Your task to perform on an android device: turn smart compose on in the gmail app Image 0: 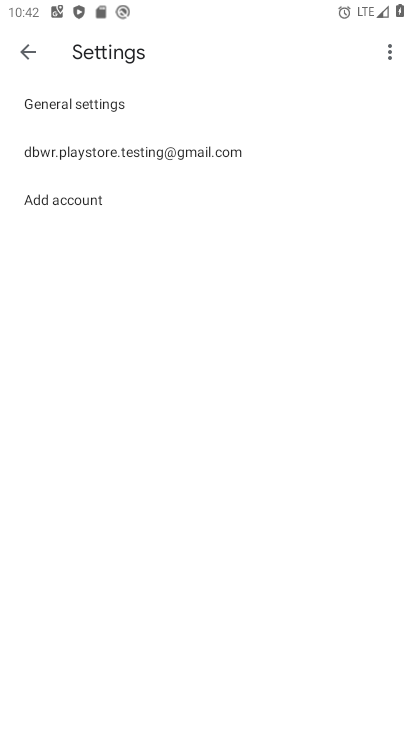
Step 0: press home button
Your task to perform on an android device: turn smart compose on in the gmail app Image 1: 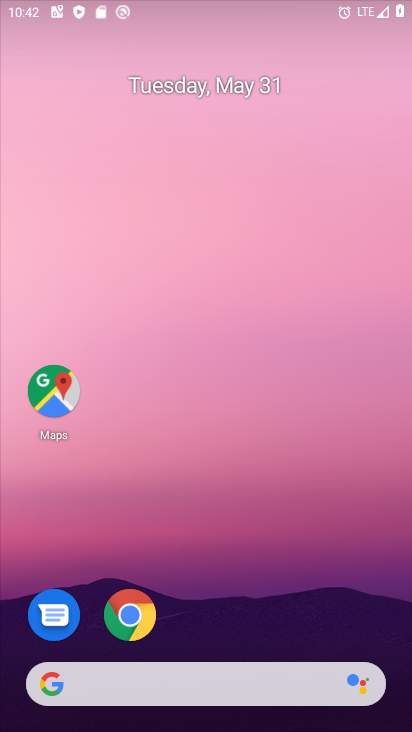
Step 1: drag from (359, 506) to (365, 26)
Your task to perform on an android device: turn smart compose on in the gmail app Image 2: 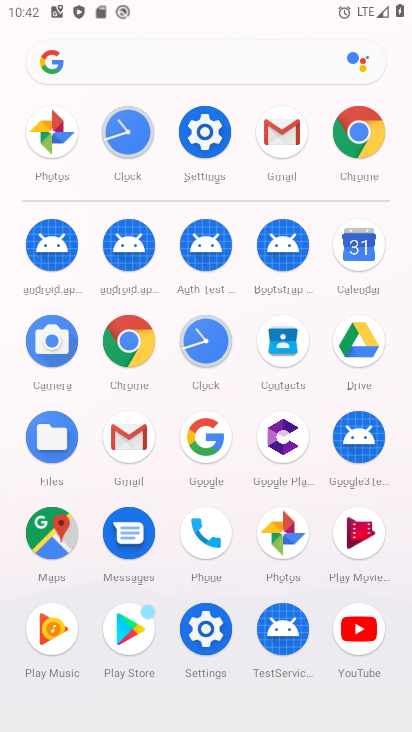
Step 2: click (266, 137)
Your task to perform on an android device: turn smart compose on in the gmail app Image 3: 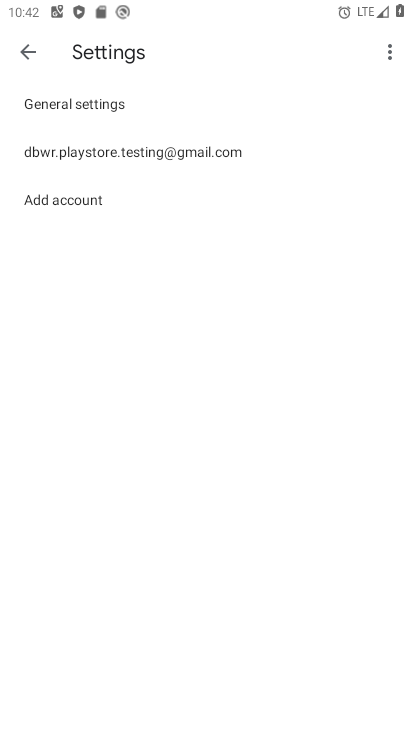
Step 3: click (26, 63)
Your task to perform on an android device: turn smart compose on in the gmail app Image 4: 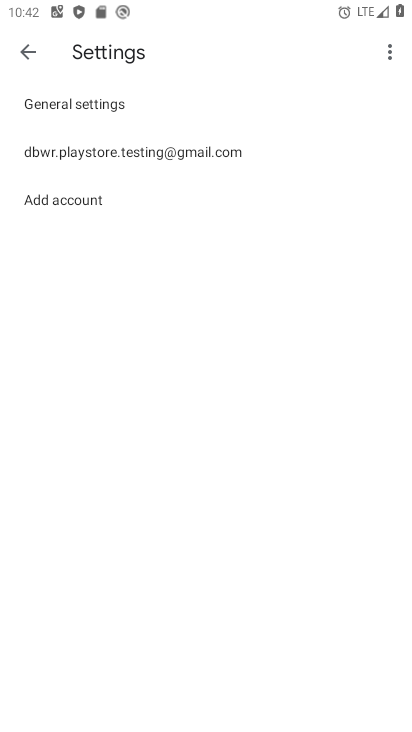
Step 4: click (26, 62)
Your task to perform on an android device: turn smart compose on in the gmail app Image 5: 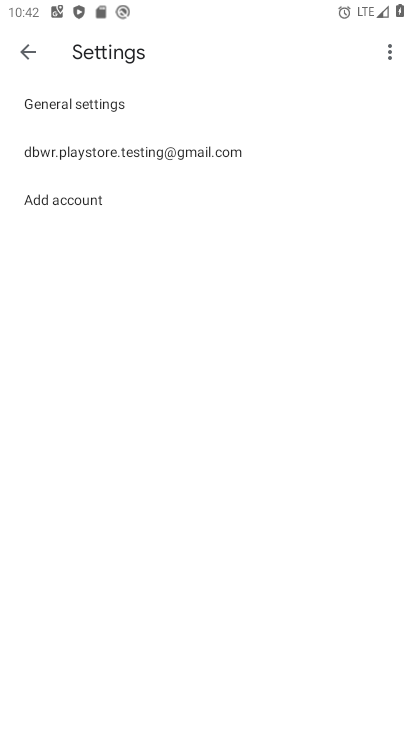
Step 5: click (26, 61)
Your task to perform on an android device: turn smart compose on in the gmail app Image 6: 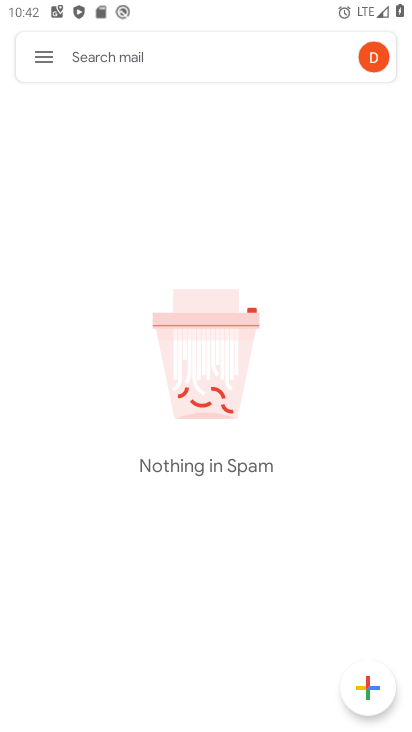
Step 6: click (26, 61)
Your task to perform on an android device: turn smart compose on in the gmail app Image 7: 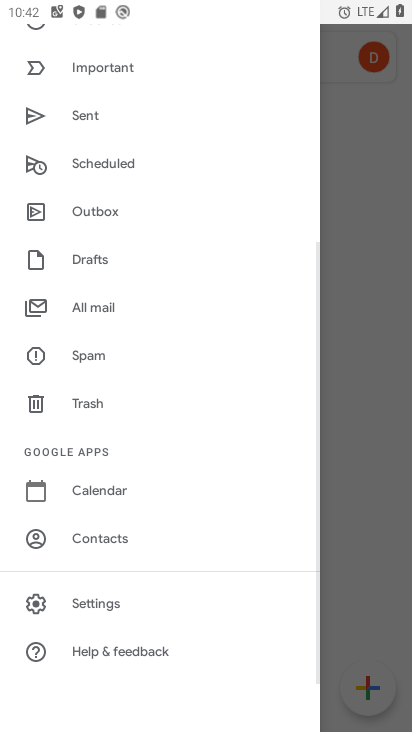
Step 7: drag from (151, 581) to (226, 209)
Your task to perform on an android device: turn smart compose on in the gmail app Image 8: 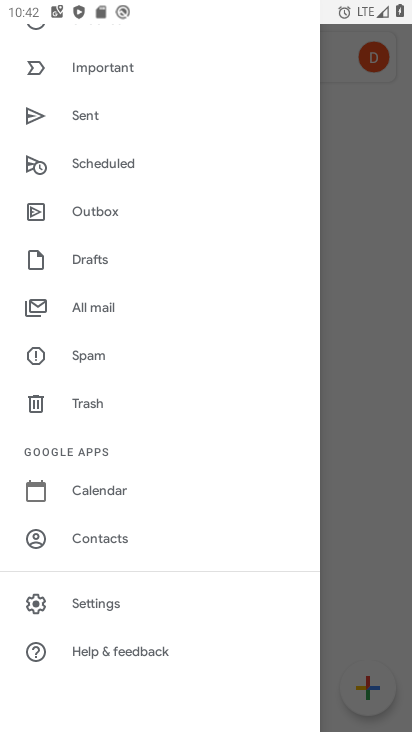
Step 8: click (86, 607)
Your task to perform on an android device: turn smart compose on in the gmail app Image 9: 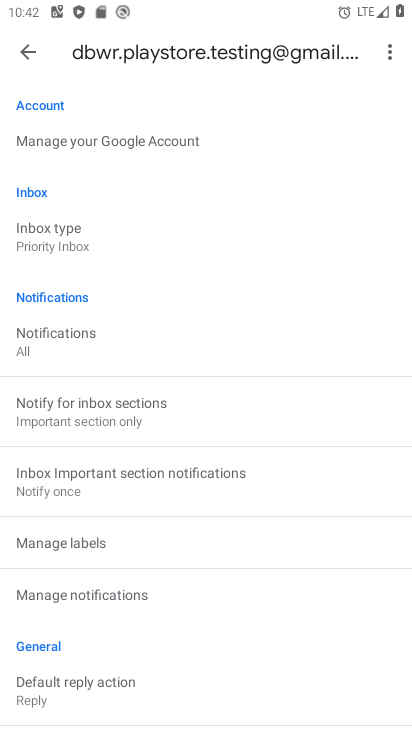
Step 9: task complete